Your task to perform on an android device: turn on improve location accuracy Image 0: 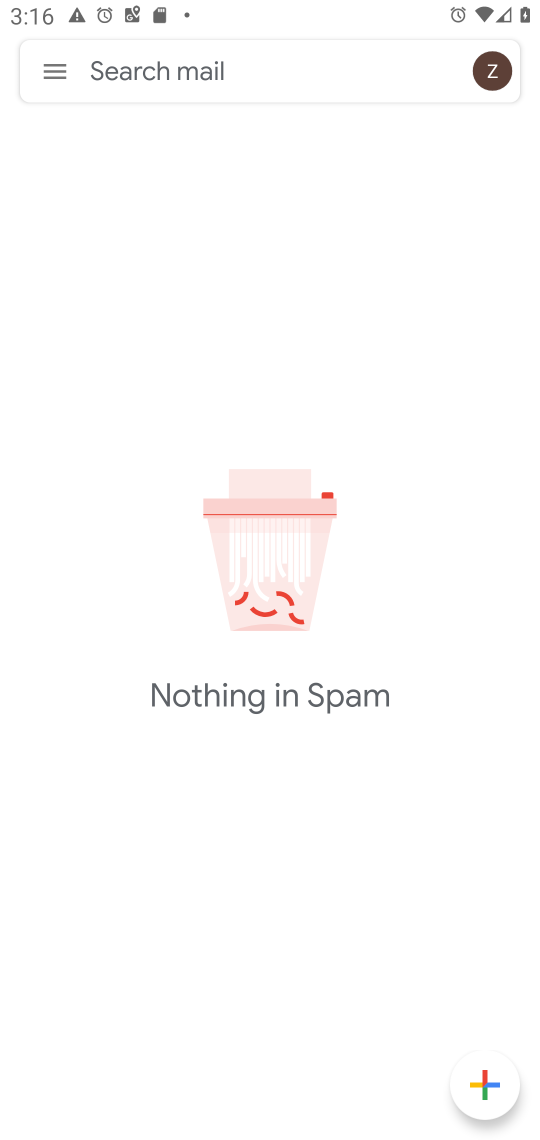
Step 0: press home button
Your task to perform on an android device: turn on improve location accuracy Image 1: 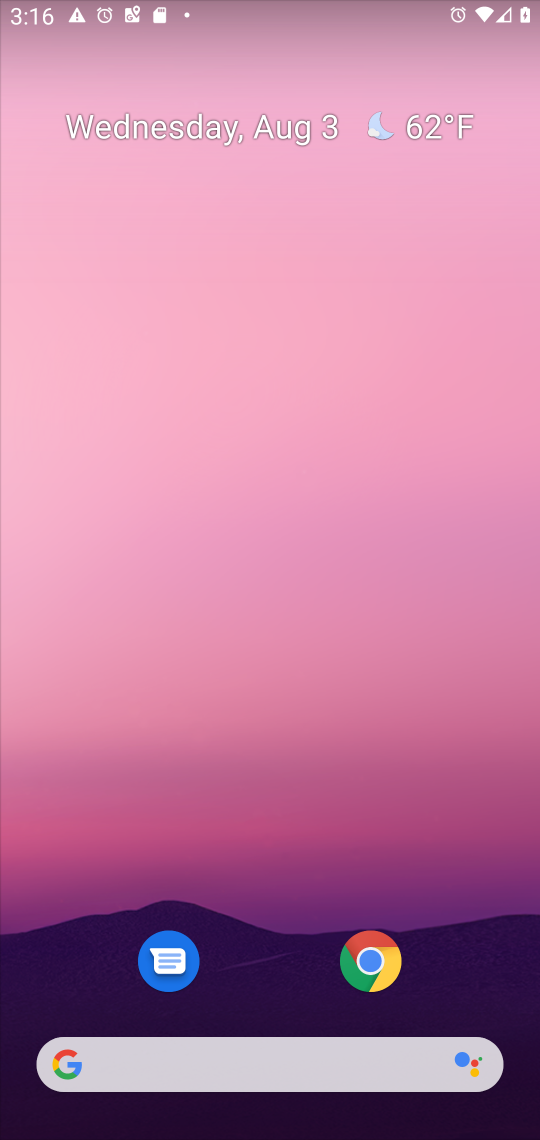
Step 1: drag from (270, 986) to (239, 30)
Your task to perform on an android device: turn on improve location accuracy Image 2: 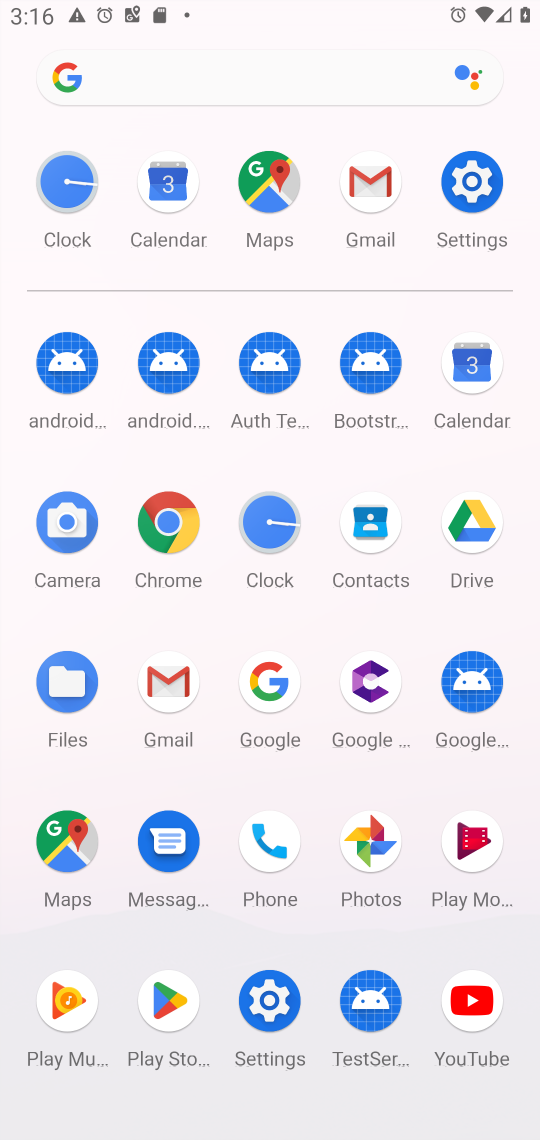
Step 2: click (470, 176)
Your task to perform on an android device: turn on improve location accuracy Image 3: 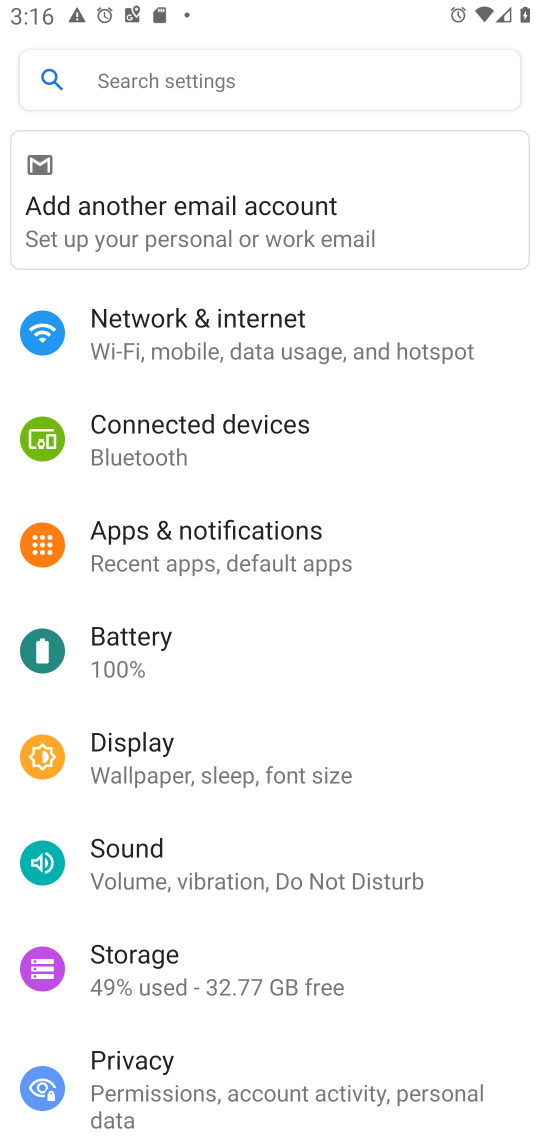
Step 3: drag from (517, 943) to (537, 571)
Your task to perform on an android device: turn on improve location accuracy Image 4: 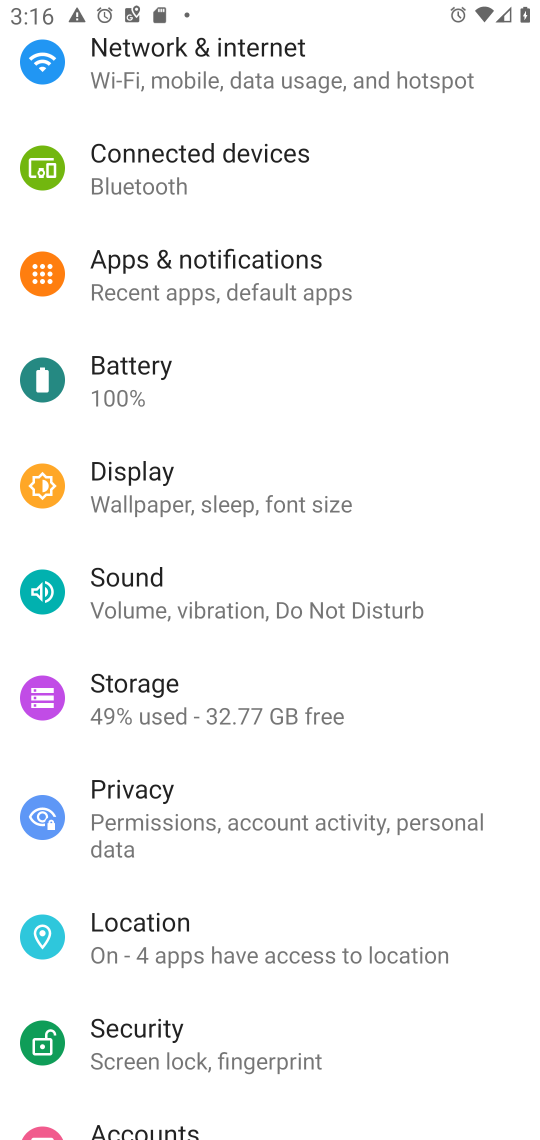
Step 4: click (135, 944)
Your task to perform on an android device: turn on improve location accuracy Image 5: 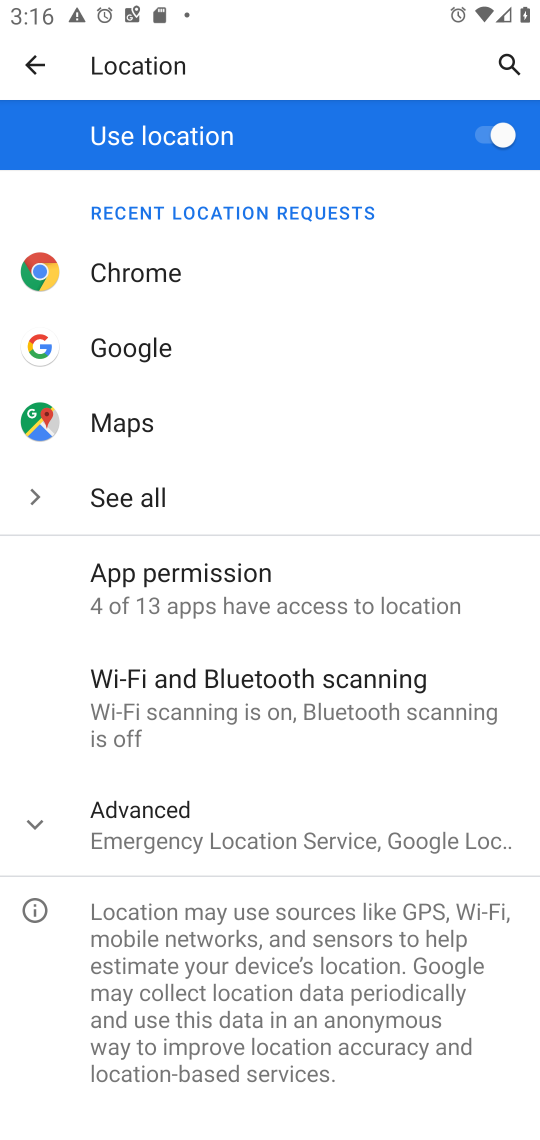
Step 5: click (41, 840)
Your task to perform on an android device: turn on improve location accuracy Image 6: 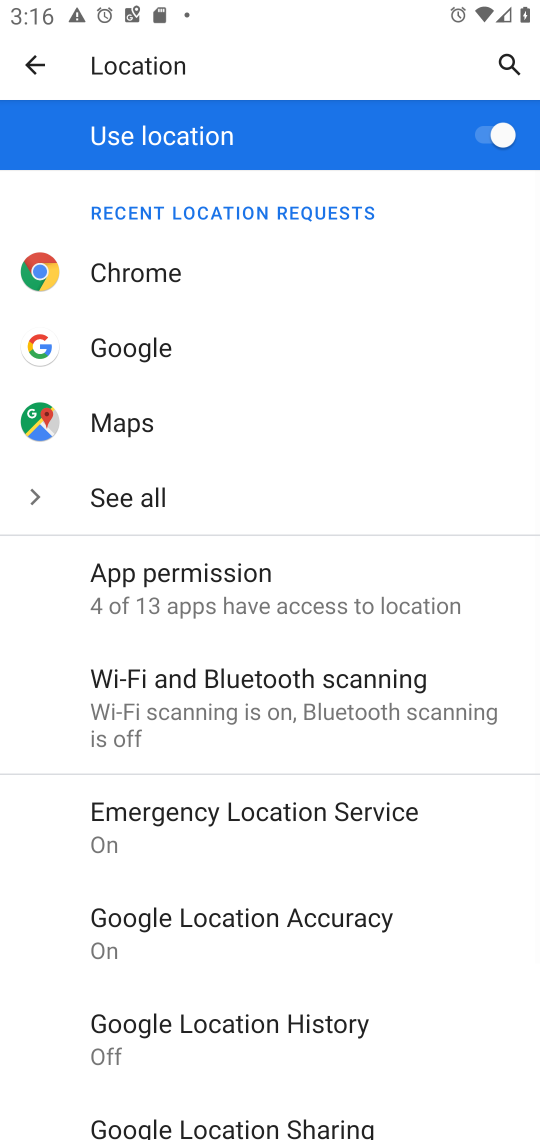
Step 6: click (155, 928)
Your task to perform on an android device: turn on improve location accuracy Image 7: 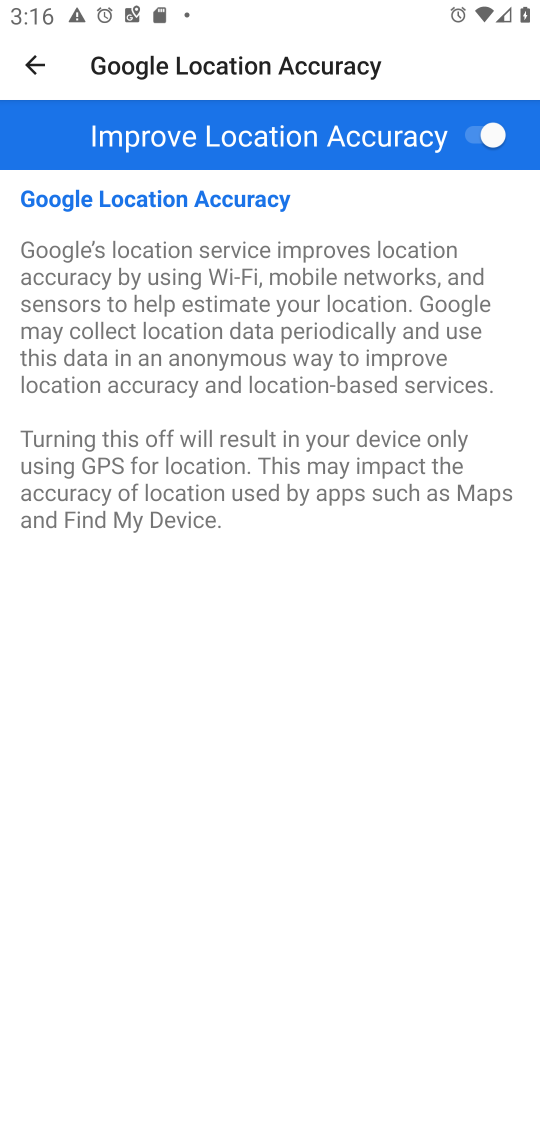
Step 7: task complete